Your task to perform on an android device: Open calendar and show me the second week of next month Image 0: 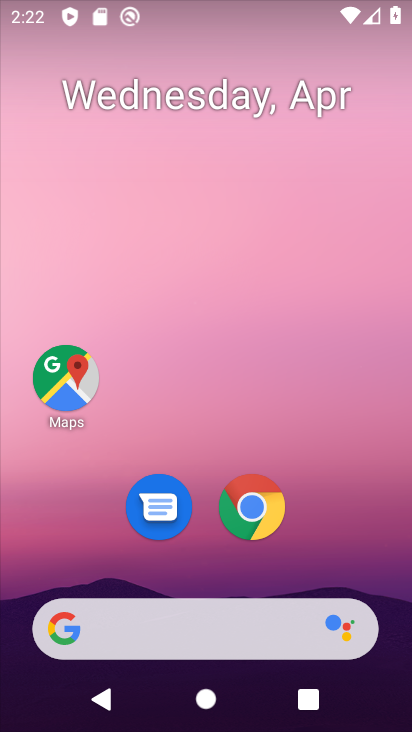
Step 0: drag from (343, 410) to (293, 116)
Your task to perform on an android device: Open calendar and show me the second week of next month Image 1: 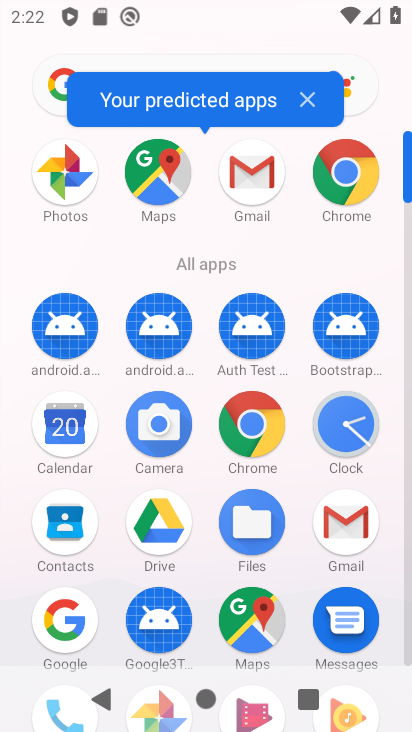
Step 1: click (73, 426)
Your task to perform on an android device: Open calendar and show me the second week of next month Image 2: 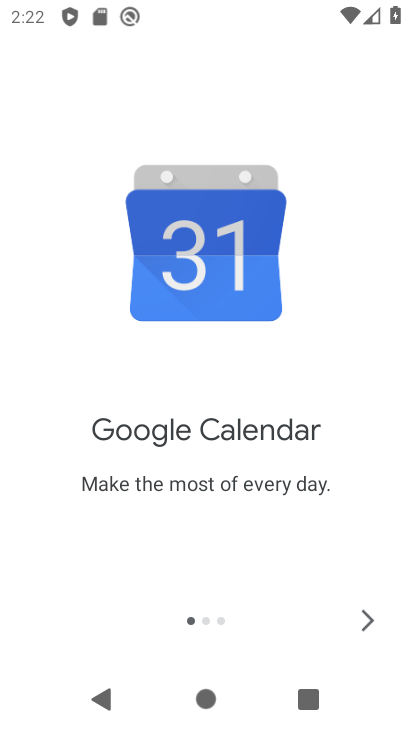
Step 2: click (363, 612)
Your task to perform on an android device: Open calendar and show me the second week of next month Image 3: 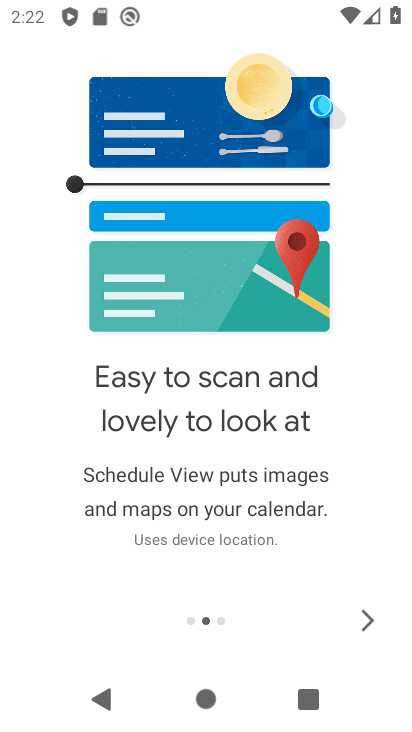
Step 3: click (363, 612)
Your task to perform on an android device: Open calendar and show me the second week of next month Image 4: 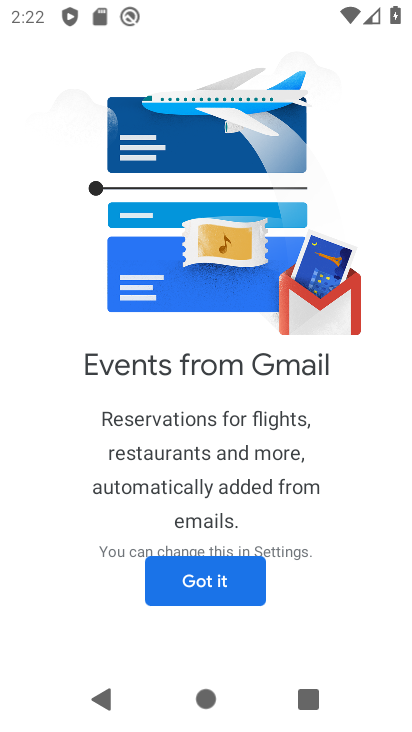
Step 4: click (242, 573)
Your task to perform on an android device: Open calendar and show me the second week of next month Image 5: 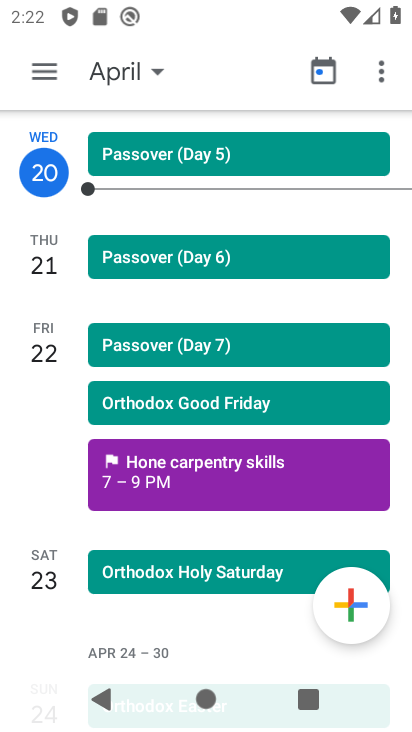
Step 5: click (40, 58)
Your task to perform on an android device: Open calendar and show me the second week of next month Image 6: 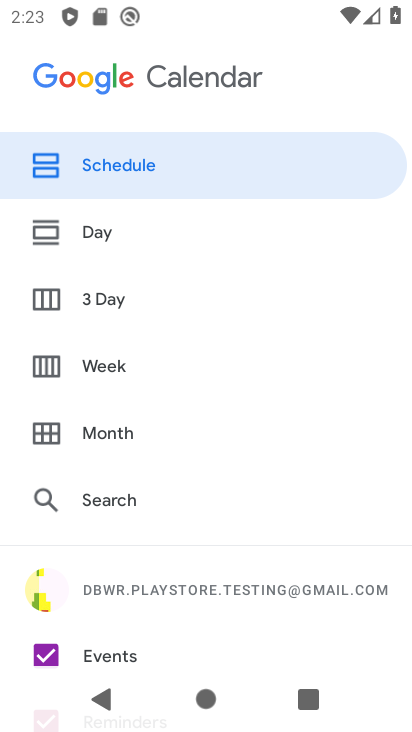
Step 6: click (47, 366)
Your task to perform on an android device: Open calendar and show me the second week of next month Image 7: 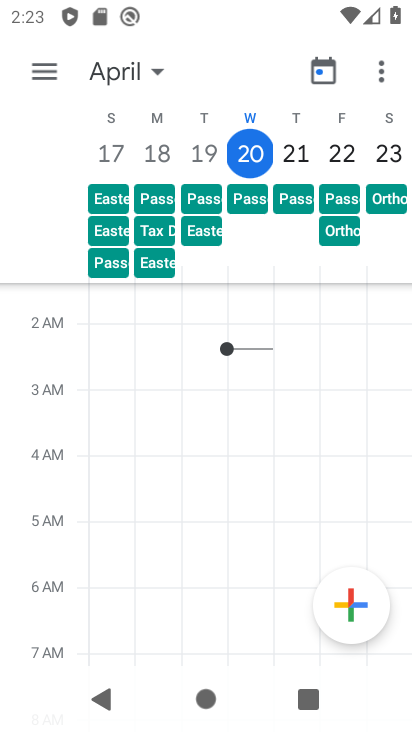
Step 7: task complete